Your task to perform on an android device: turn off location history Image 0: 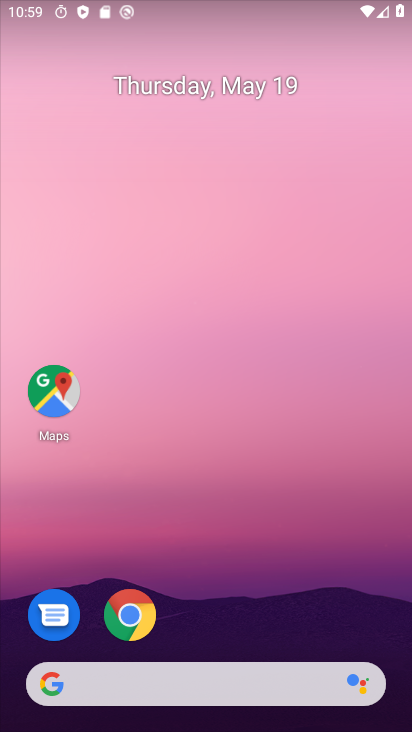
Step 0: drag from (354, 498) to (257, 211)
Your task to perform on an android device: turn off location history Image 1: 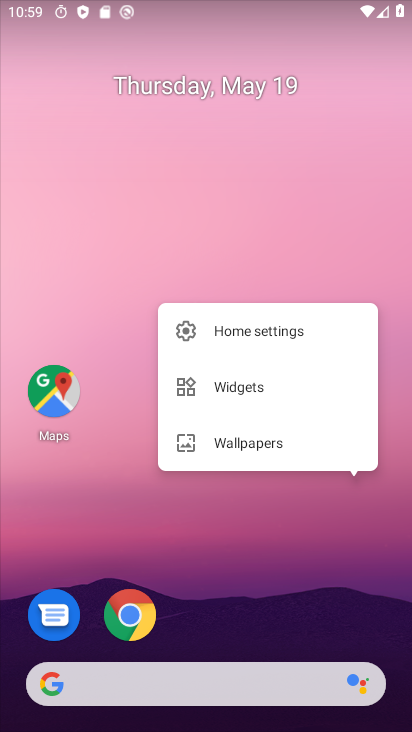
Step 1: drag from (320, 605) to (217, 236)
Your task to perform on an android device: turn off location history Image 2: 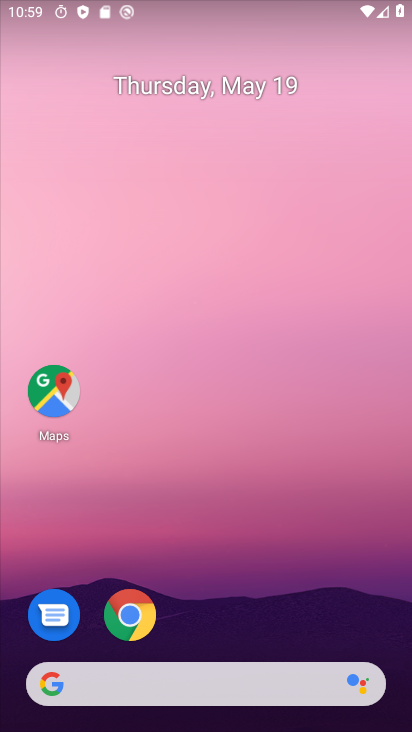
Step 2: drag from (283, 584) to (261, 51)
Your task to perform on an android device: turn off location history Image 3: 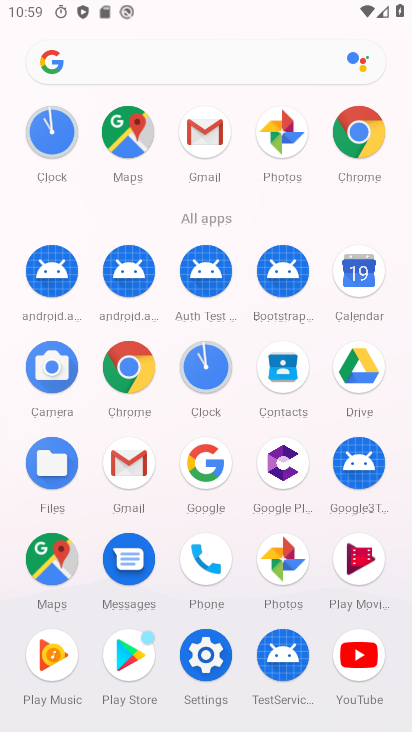
Step 3: click (215, 668)
Your task to perform on an android device: turn off location history Image 4: 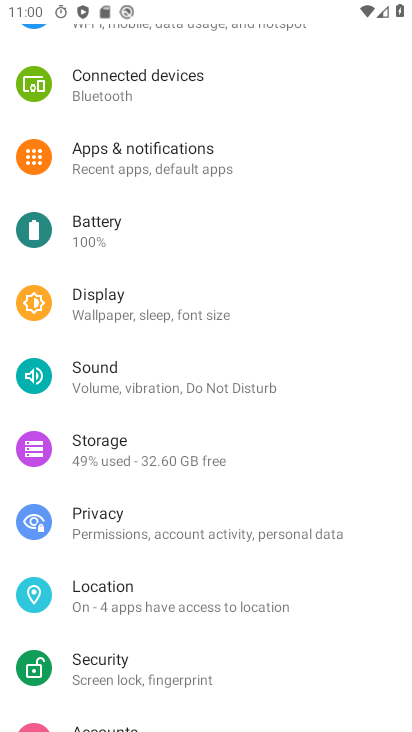
Step 4: click (106, 590)
Your task to perform on an android device: turn off location history Image 5: 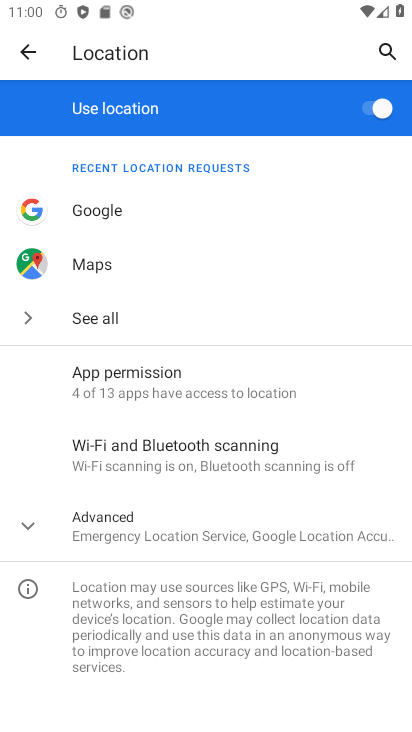
Step 5: click (222, 523)
Your task to perform on an android device: turn off location history Image 6: 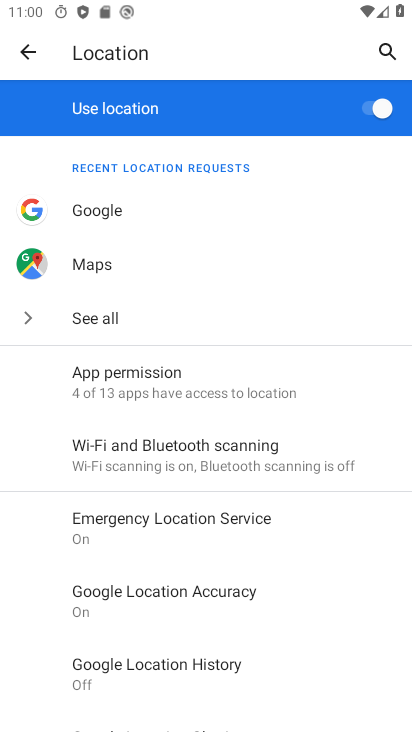
Step 6: click (211, 659)
Your task to perform on an android device: turn off location history Image 7: 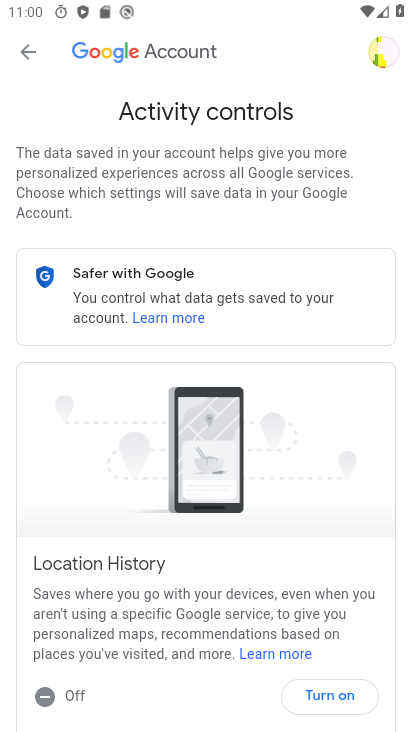
Step 7: task complete